Your task to perform on an android device: Open battery settings Image 0: 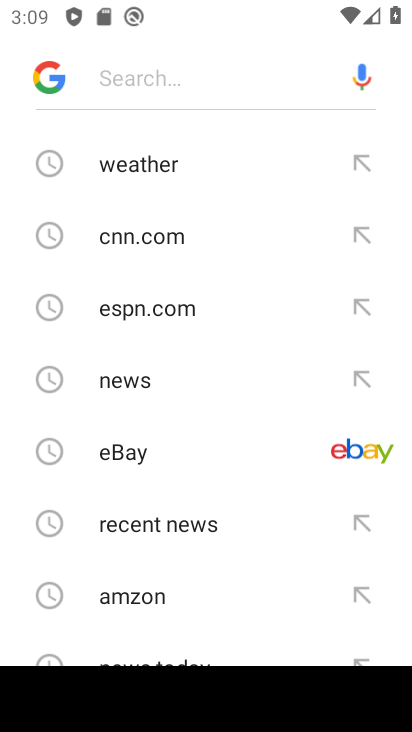
Step 0: press home button
Your task to perform on an android device: Open battery settings Image 1: 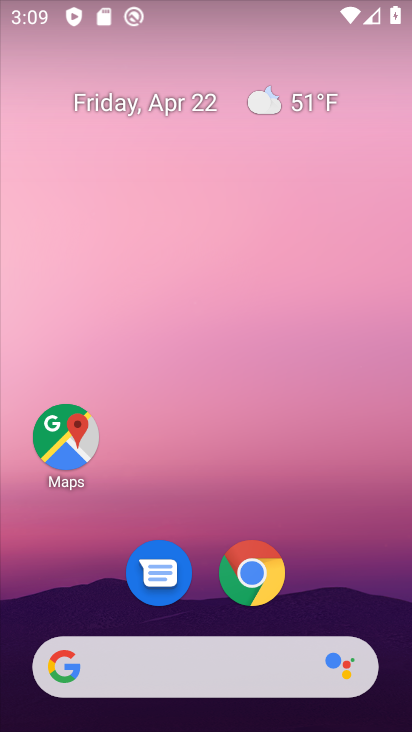
Step 1: drag from (321, 583) to (315, 99)
Your task to perform on an android device: Open battery settings Image 2: 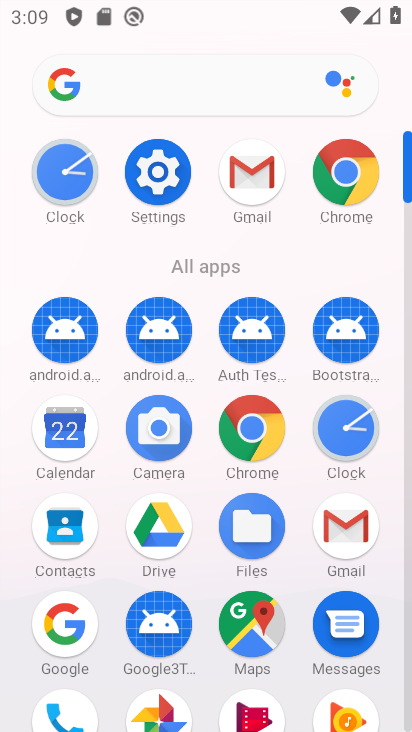
Step 2: click (140, 157)
Your task to perform on an android device: Open battery settings Image 3: 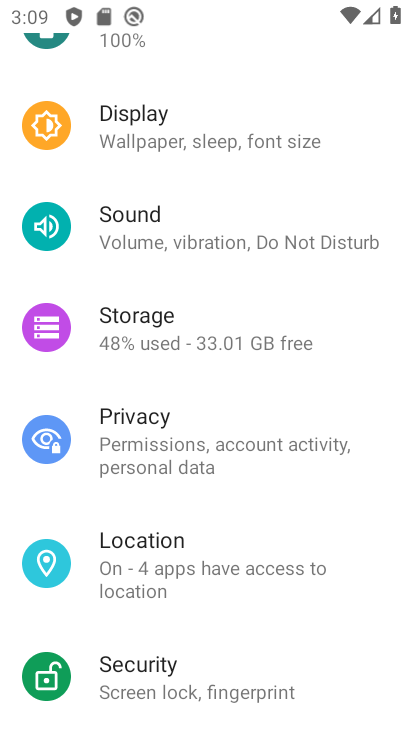
Step 3: drag from (296, 208) to (257, 611)
Your task to perform on an android device: Open battery settings Image 4: 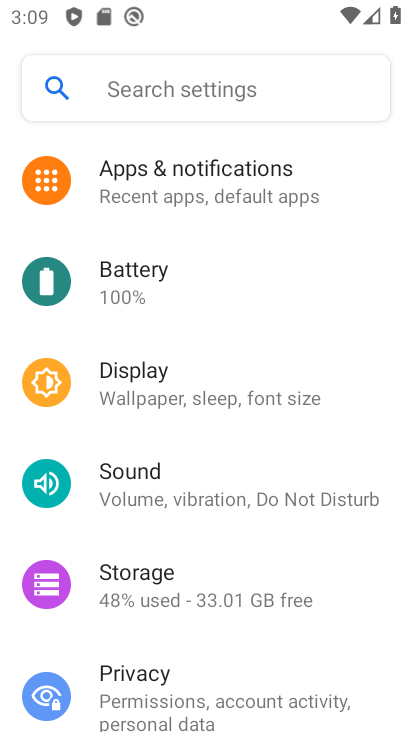
Step 4: click (192, 289)
Your task to perform on an android device: Open battery settings Image 5: 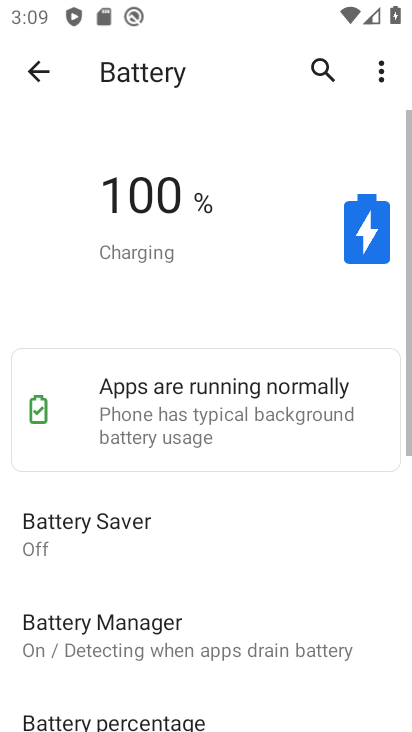
Step 5: task complete